Your task to perform on an android device: turn off picture-in-picture Image 0: 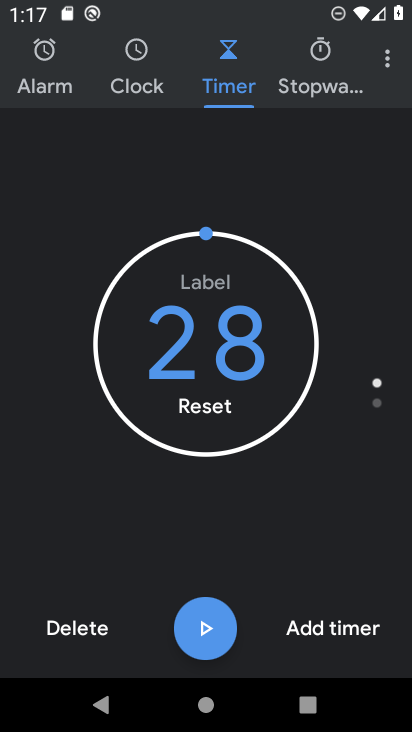
Step 0: press home button
Your task to perform on an android device: turn off picture-in-picture Image 1: 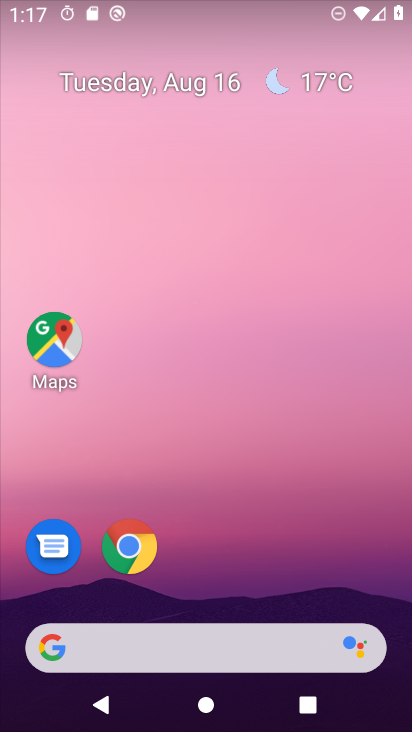
Step 1: drag from (257, 603) to (263, 143)
Your task to perform on an android device: turn off picture-in-picture Image 2: 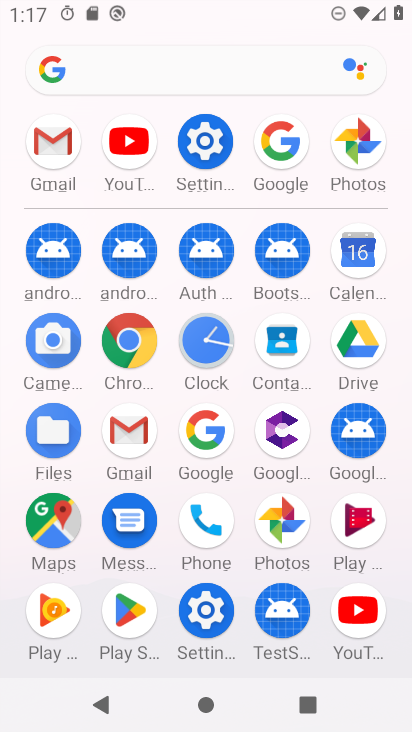
Step 2: click (216, 141)
Your task to perform on an android device: turn off picture-in-picture Image 3: 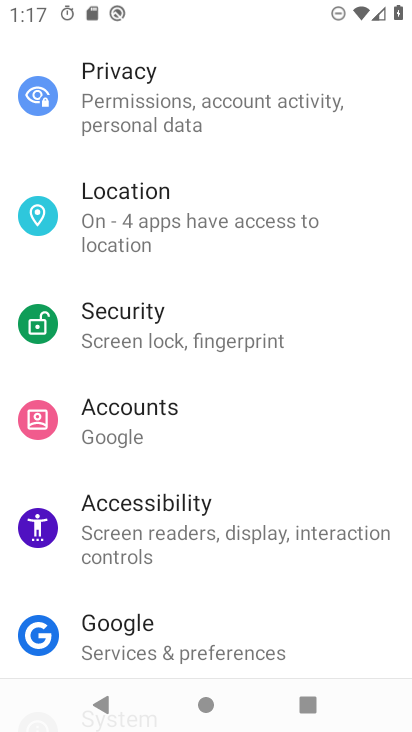
Step 3: drag from (157, 155) to (153, 522)
Your task to perform on an android device: turn off picture-in-picture Image 4: 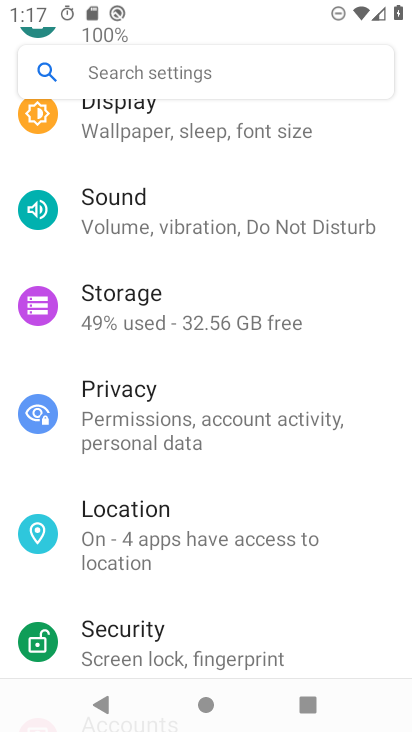
Step 4: drag from (155, 159) to (129, 548)
Your task to perform on an android device: turn off picture-in-picture Image 5: 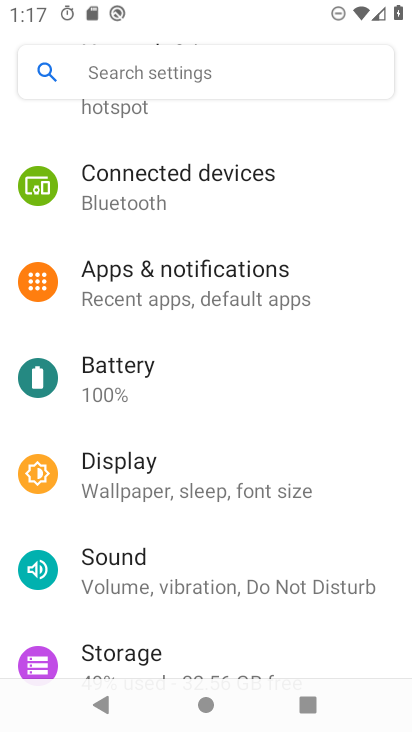
Step 5: drag from (138, 217) to (122, 581)
Your task to perform on an android device: turn off picture-in-picture Image 6: 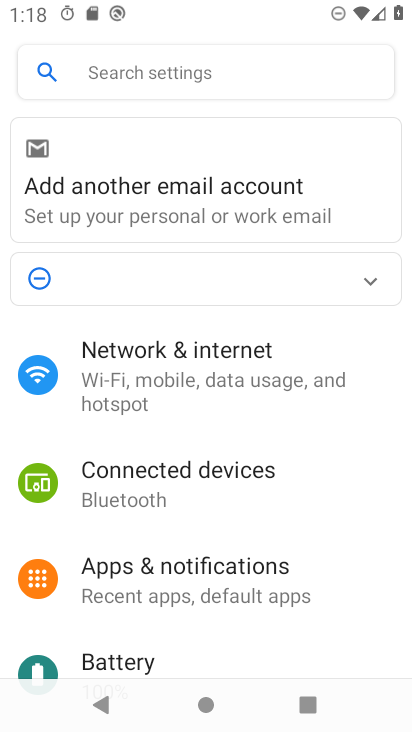
Step 6: click (188, 571)
Your task to perform on an android device: turn off picture-in-picture Image 7: 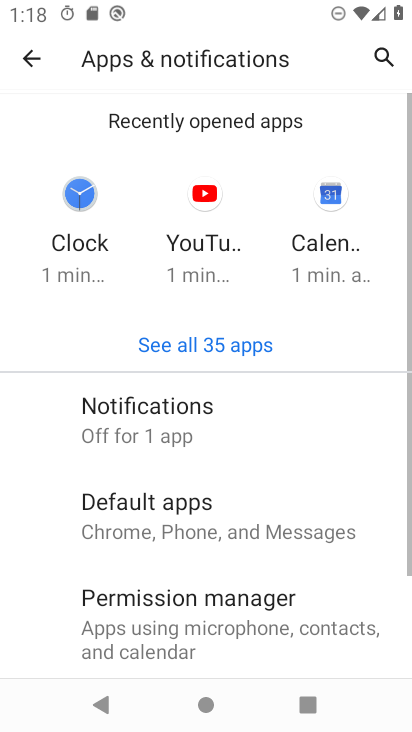
Step 7: drag from (205, 639) to (200, 449)
Your task to perform on an android device: turn off picture-in-picture Image 8: 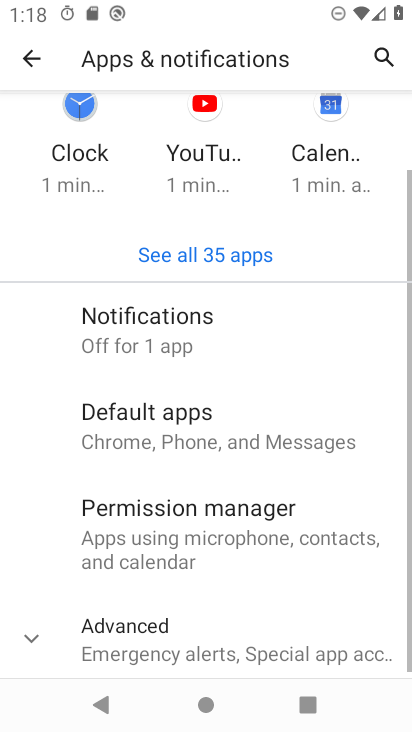
Step 8: click (198, 385)
Your task to perform on an android device: turn off picture-in-picture Image 9: 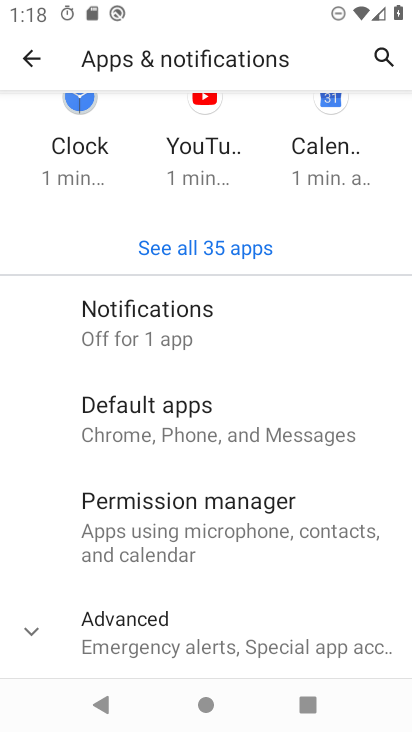
Step 9: click (150, 636)
Your task to perform on an android device: turn off picture-in-picture Image 10: 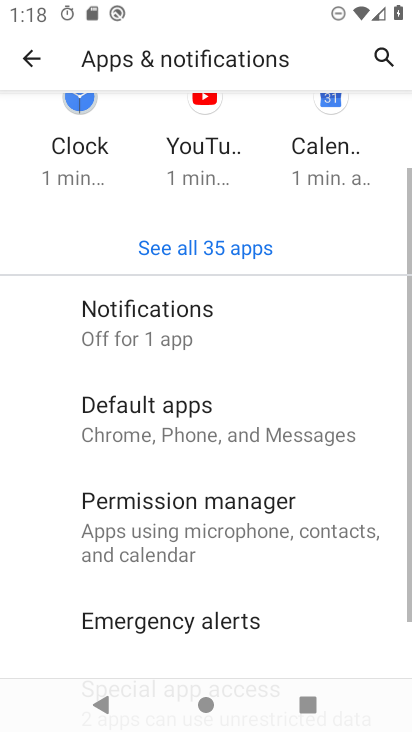
Step 10: drag from (257, 647) to (259, 296)
Your task to perform on an android device: turn off picture-in-picture Image 11: 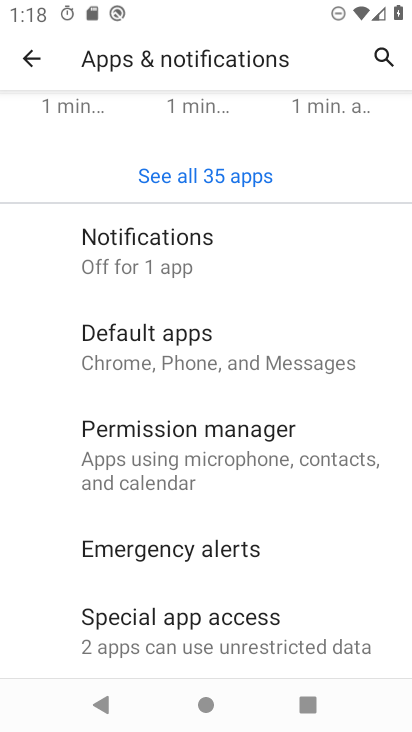
Step 11: click (199, 630)
Your task to perform on an android device: turn off picture-in-picture Image 12: 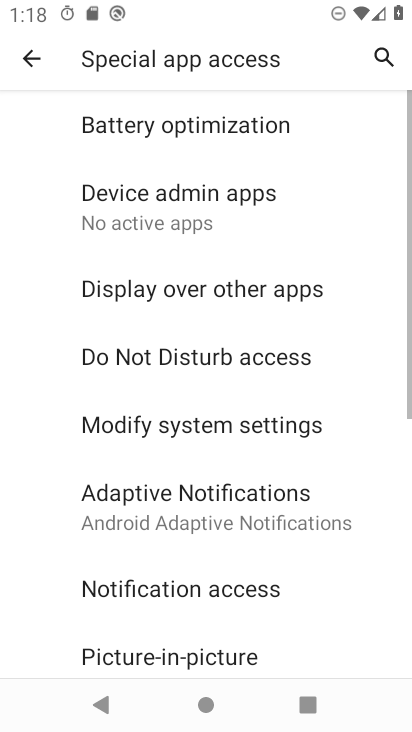
Step 12: click (244, 656)
Your task to perform on an android device: turn off picture-in-picture Image 13: 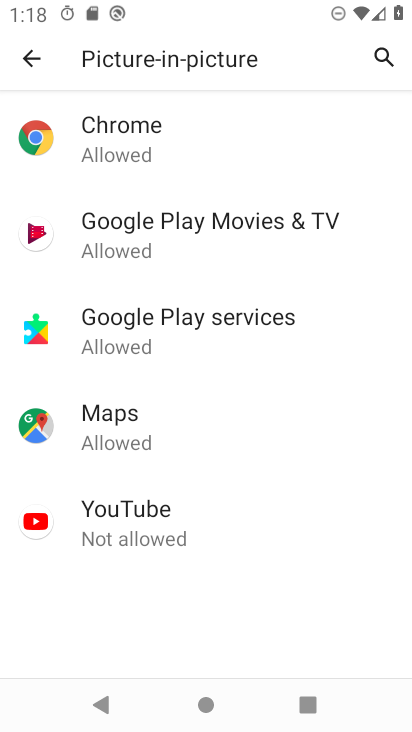
Step 13: click (124, 537)
Your task to perform on an android device: turn off picture-in-picture Image 14: 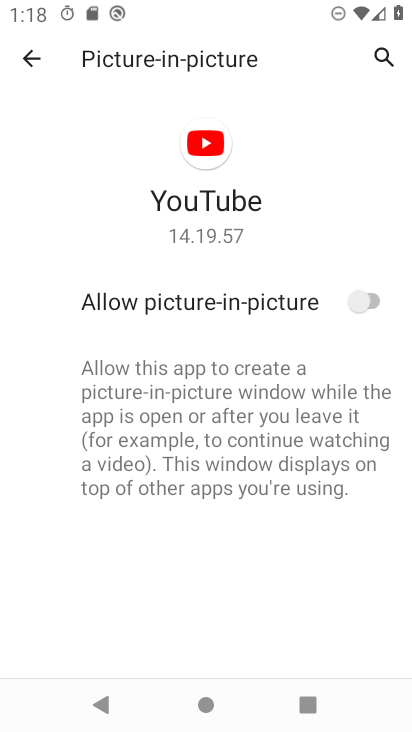
Step 14: task complete